Your task to perform on an android device: turn off picture-in-picture Image 0: 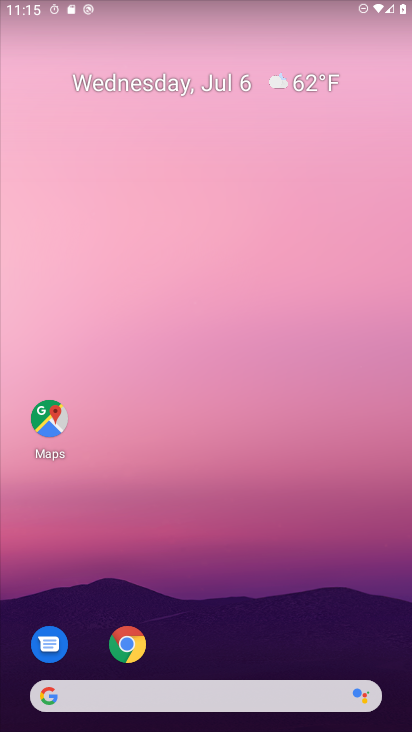
Step 0: drag from (270, 647) to (227, 156)
Your task to perform on an android device: turn off picture-in-picture Image 1: 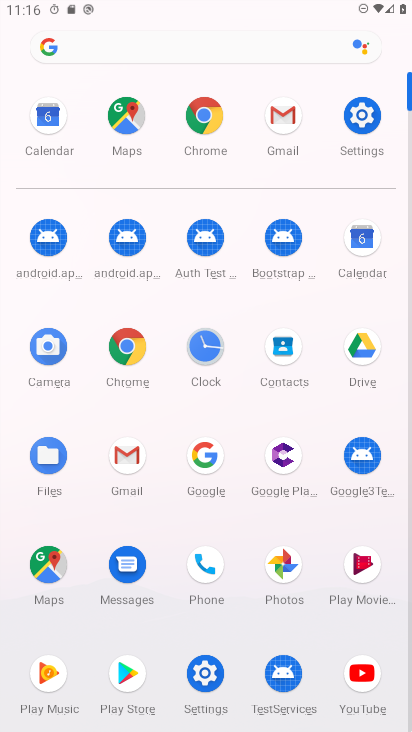
Step 1: click (133, 349)
Your task to perform on an android device: turn off picture-in-picture Image 2: 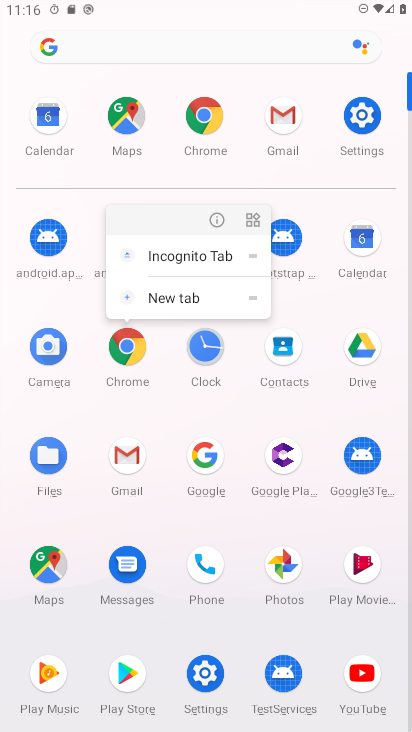
Step 2: click (210, 221)
Your task to perform on an android device: turn off picture-in-picture Image 3: 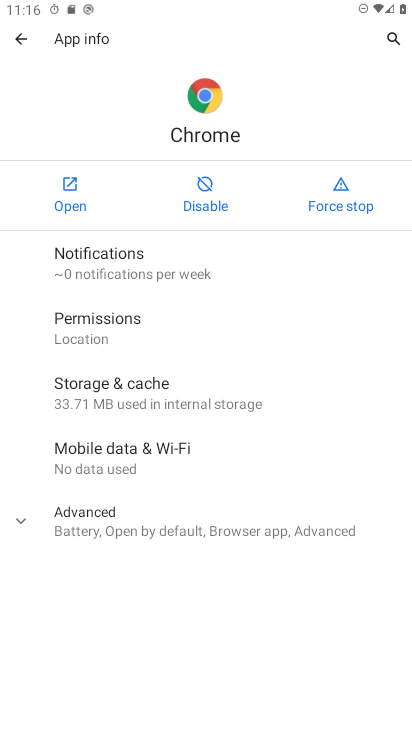
Step 3: click (73, 517)
Your task to perform on an android device: turn off picture-in-picture Image 4: 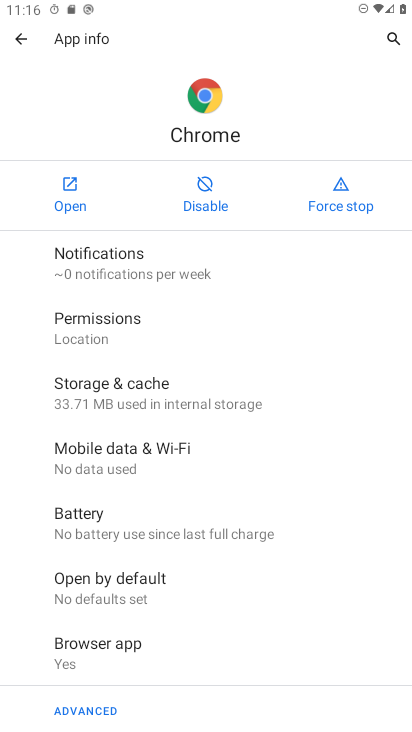
Step 4: drag from (252, 614) to (316, 239)
Your task to perform on an android device: turn off picture-in-picture Image 5: 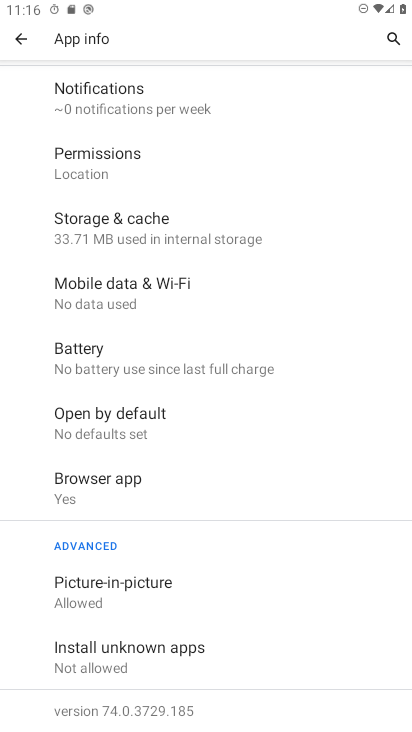
Step 5: click (113, 593)
Your task to perform on an android device: turn off picture-in-picture Image 6: 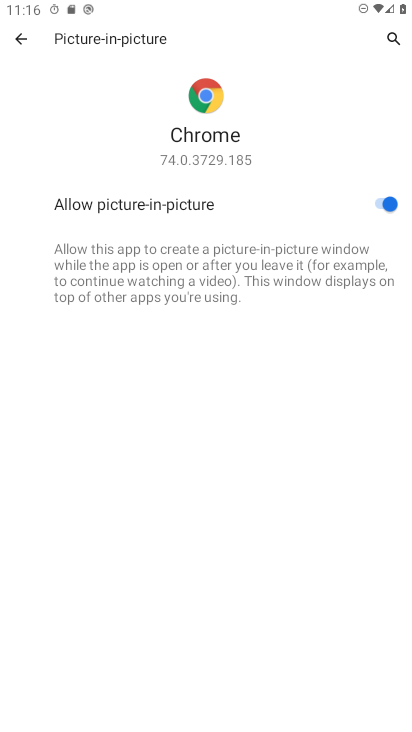
Step 6: click (395, 200)
Your task to perform on an android device: turn off picture-in-picture Image 7: 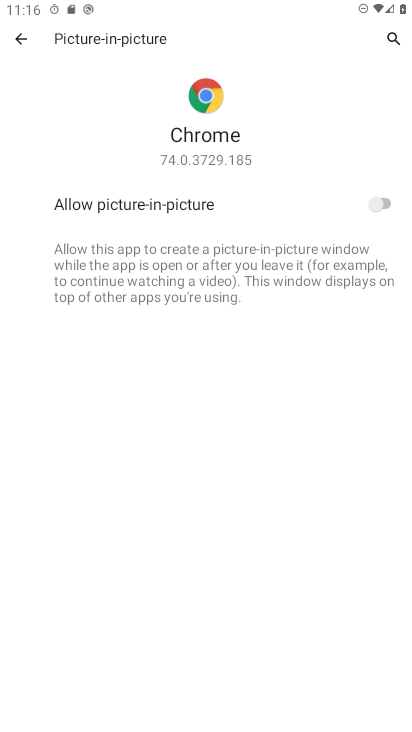
Step 7: task complete